Your task to perform on an android device: turn off location Image 0: 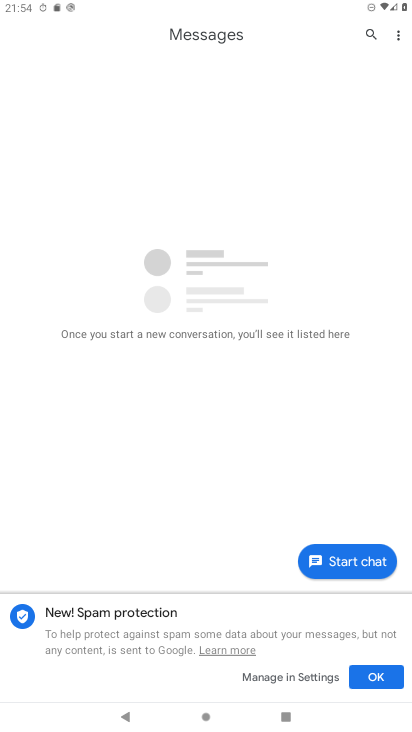
Step 0: press home button
Your task to perform on an android device: turn off location Image 1: 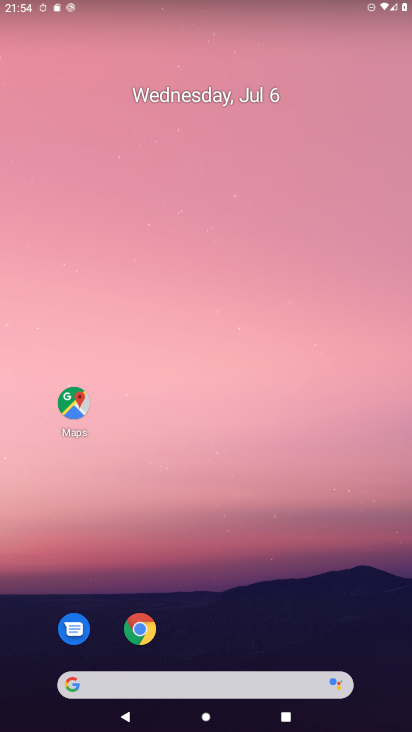
Step 1: drag from (235, 731) to (225, 617)
Your task to perform on an android device: turn off location Image 2: 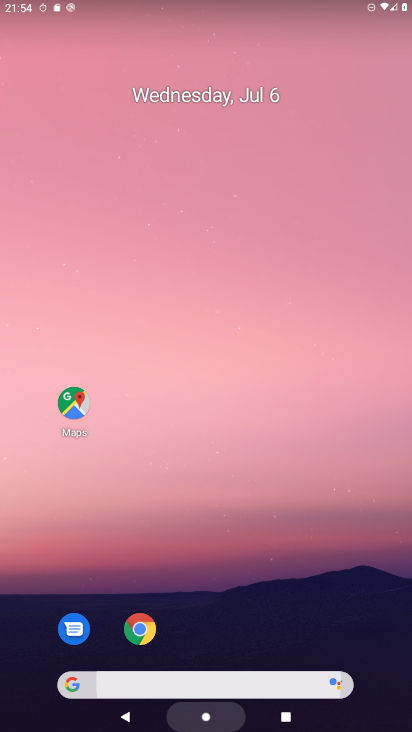
Step 2: drag from (199, 324) to (181, 99)
Your task to perform on an android device: turn off location Image 3: 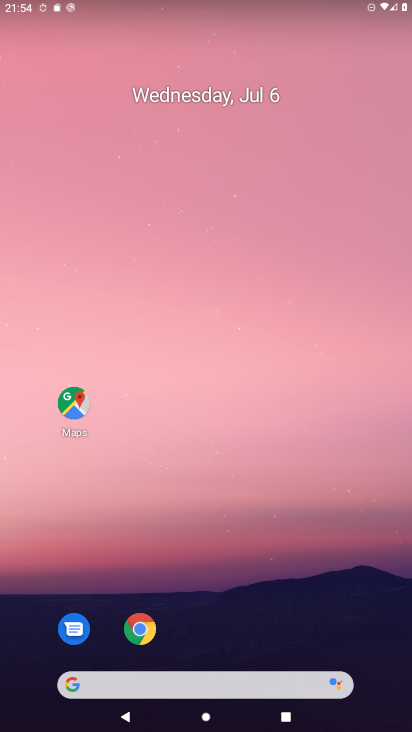
Step 3: drag from (236, 720) to (206, 498)
Your task to perform on an android device: turn off location Image 4: 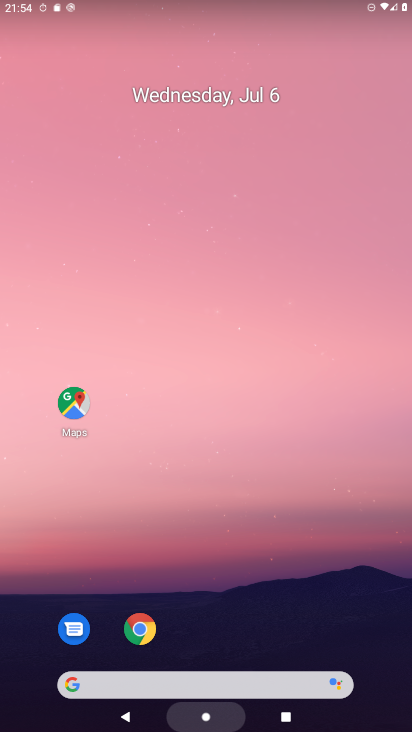
Step 4: drag from (173, 260) to (149, 13)
Your task to perform on an android device: turn off location Image 5: 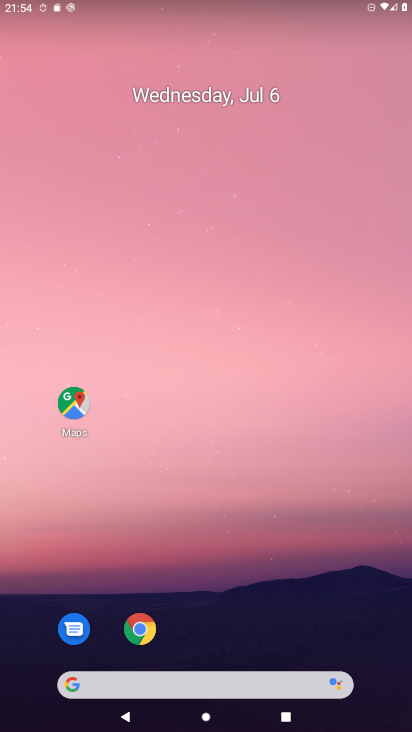
Step 5: drag from (250, 712) to (250, 30)
Your task to perform on an android device: turn off location Image 6: 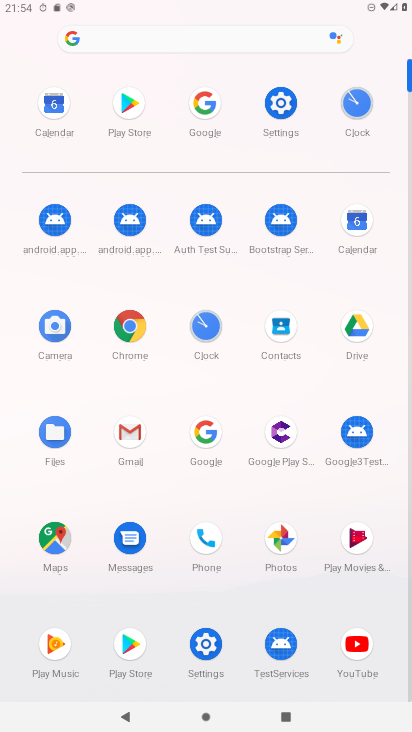
Step 6: click (278, 107)
Your task to perform on an android device: turn off location Image 7: 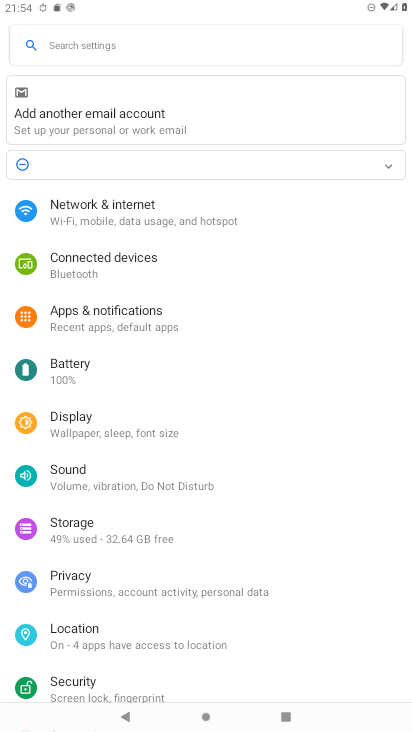
Step 7: click (86, 631)
Your task to perform on an android device: turn off location Image 8: 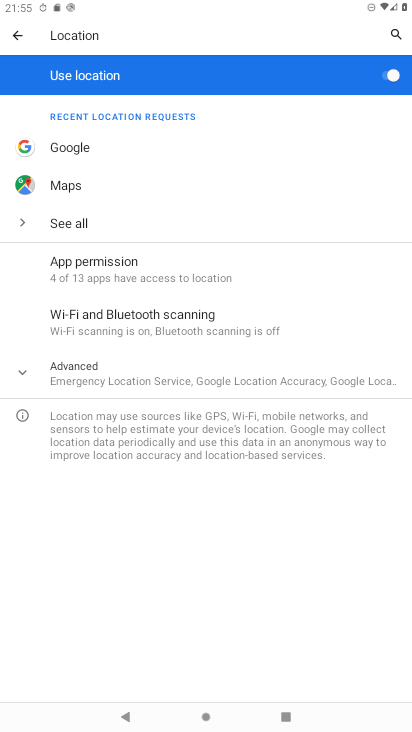
Step 8: click (382, 71)
Your task to perform on an android device: turn off location Image 9: 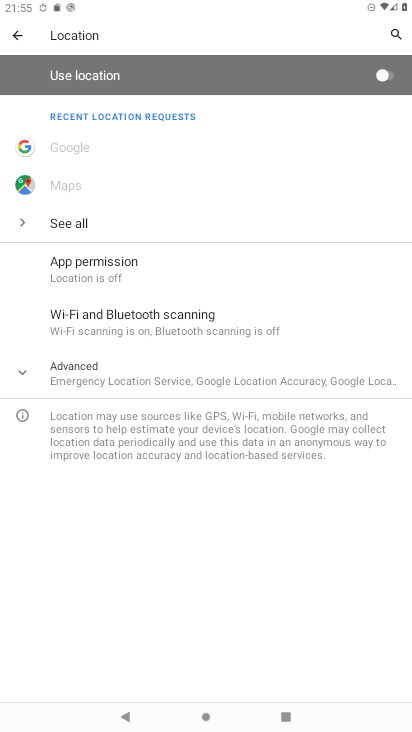
Step 9: task complete